Your task to perform on an android device: turn on wifi Image 0: 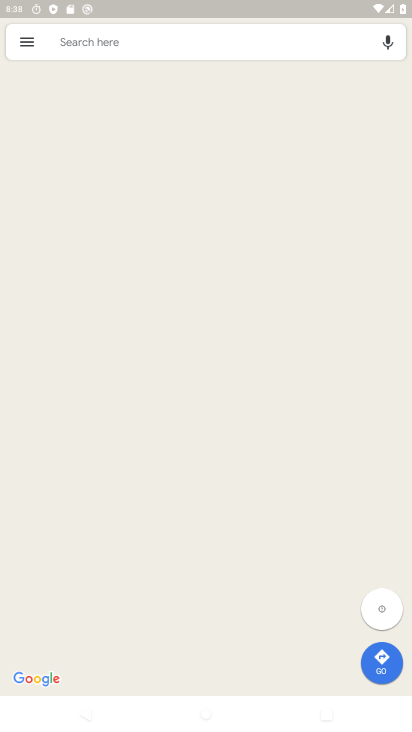
Step 0: press home button
Your task to perform on an android device: turn on wifi Image 1: 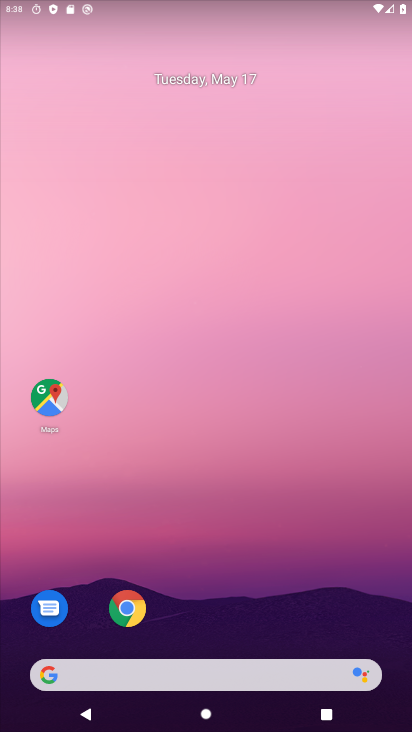
Step 1: drag from (385, 615) to (369, 159)
Your task to perform on an android device: turn on wifi Image 2: 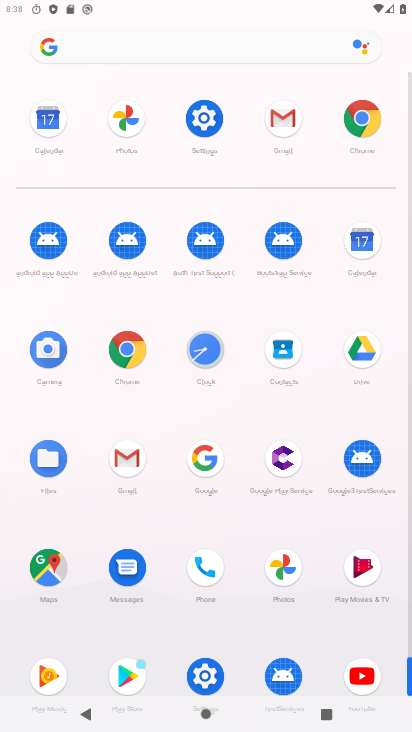
Step 2: click (198, 684)
Your task to perform on an android device: turn on wifi Image 3: 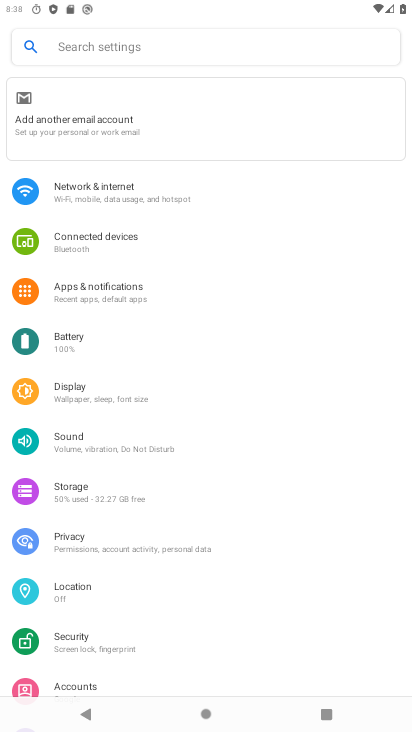
Step 3: click (133, 188)
Your task to perform on an android device: turn on wifi Image 4: 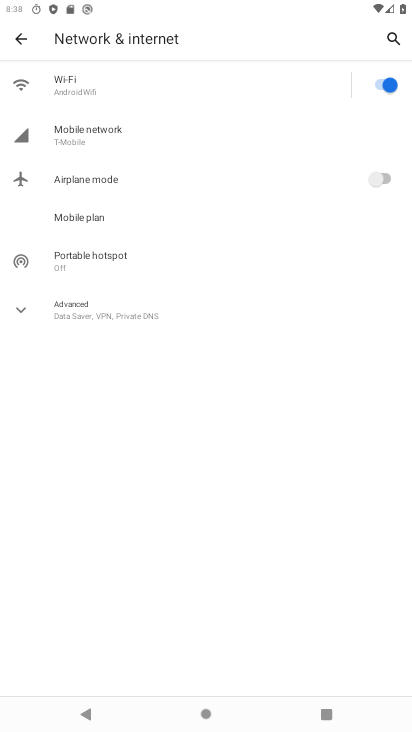
Step 4: task complete